Your task to perform on an android device: clear history in the chrome app Image 0: 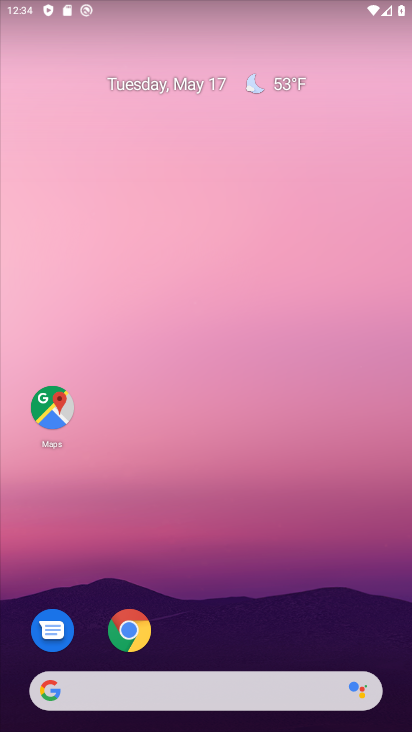
Step 0: drag from (235, 635) to (274, 184)
Your task to perform on an android device: clear history in the chrome app Image 1: 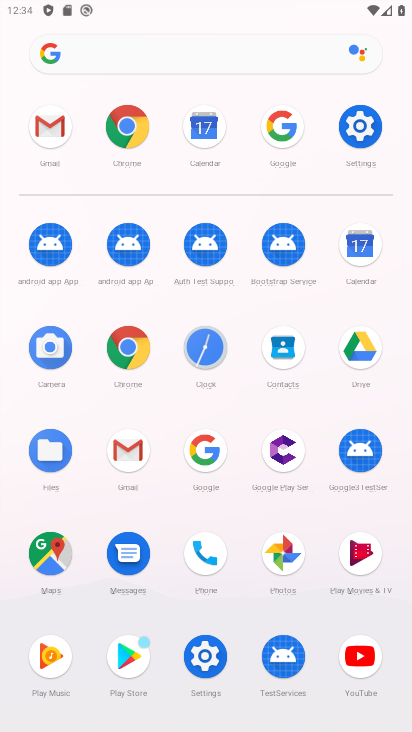
Step 1: click (116, 346)
Your task to perform on an android device: clear history in the chrome app Image 2: 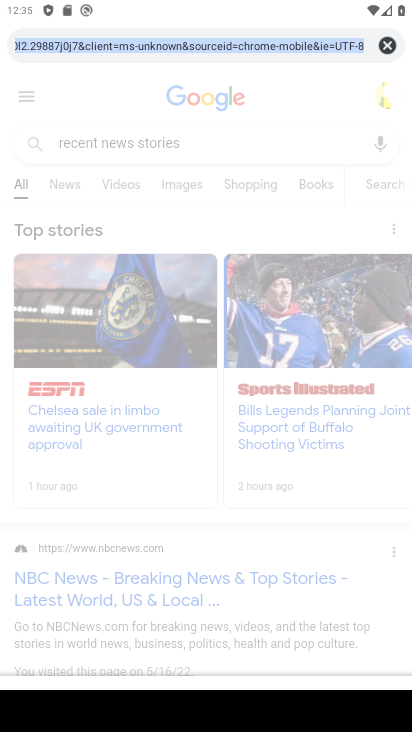
Step 2: click (159, 243)
Your task to perform on an android device: clear history in the chrome app Image 3: 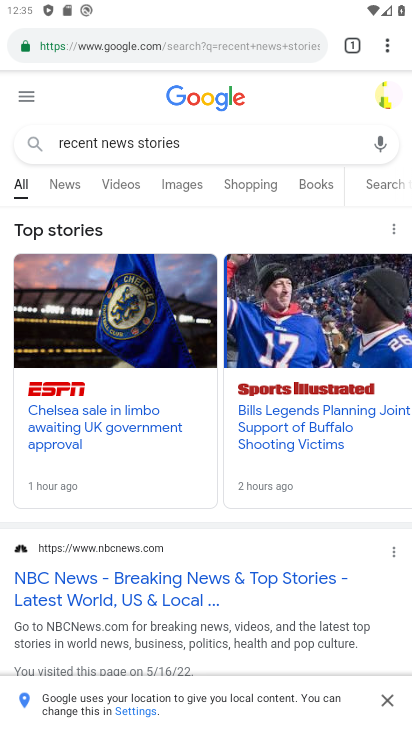
Step 3: click (384, 43)
Your task to perform on an android device: clear history in the chrome app Image 4: 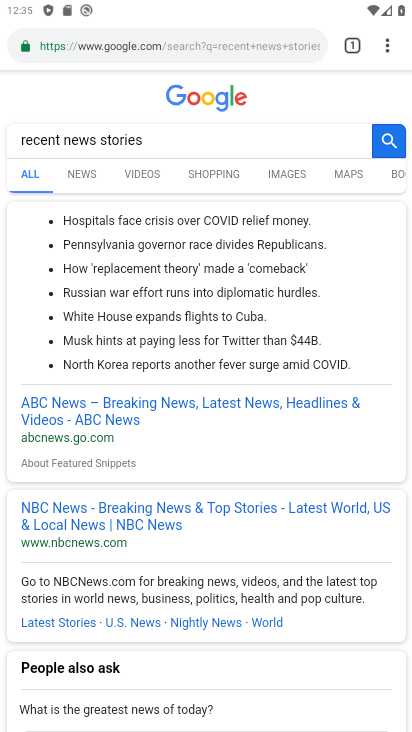
Step 4: click (390, 51)
Your task to perform on an android device: clear history in the chrome app Image 5: 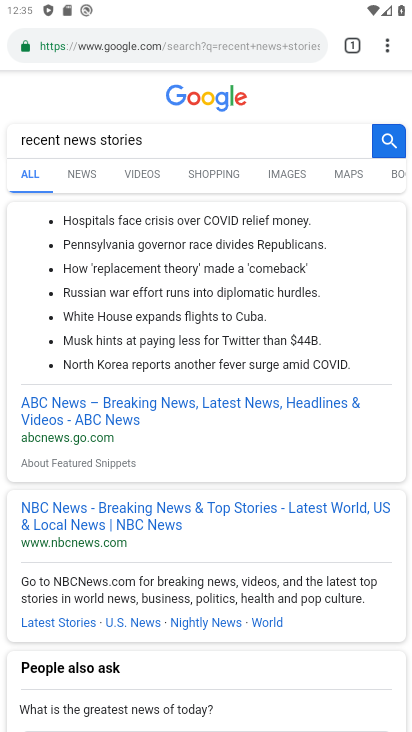
Step 5: click (390, 52)
Your task to perform on an android device: clear history in the chrome app Image 6: 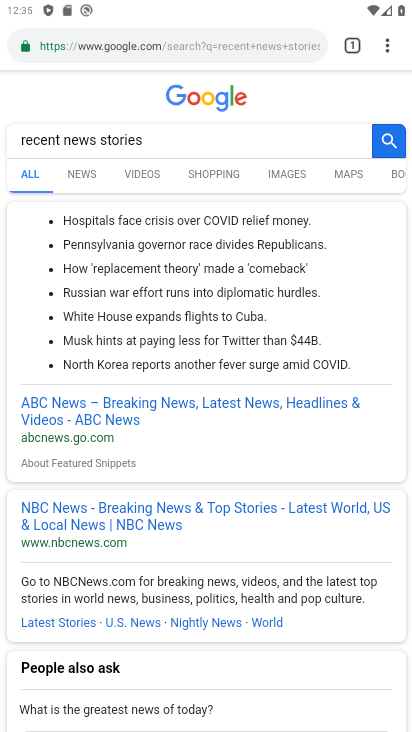
Step 6: click (389, 53)
Your task to perform on an android device: clear history in the chrome app Image 7: 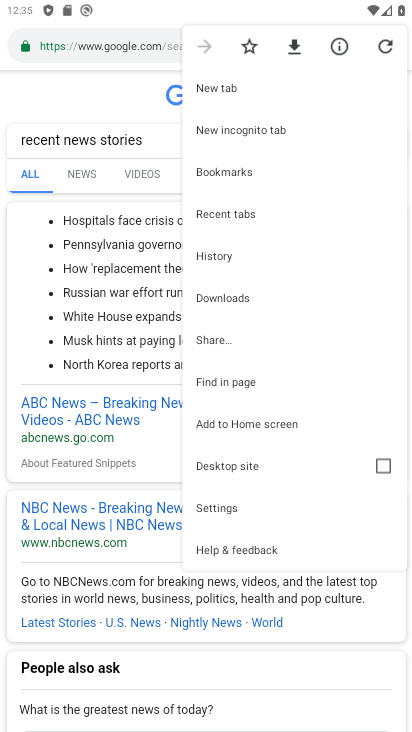
Step 7: drag from (260, 412) to (260, 239)
Your task to perform on an android device: clear history in the chrome app Image 8: 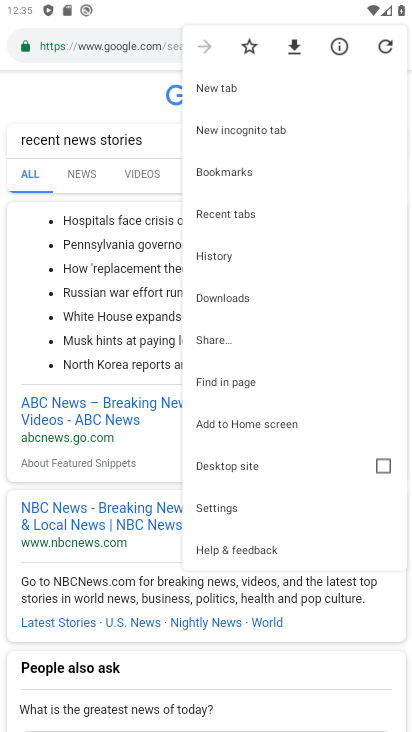
Step 8: click (245, 517)
Your task to perform on an android device: clear history in the chrome app Image 9: 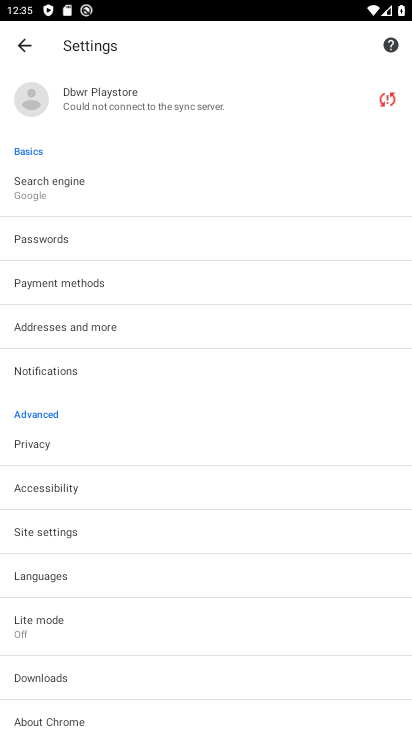
Step 9: click (20, 47)
Your task to perform on an android device: clear history in the chrome app Image 10: 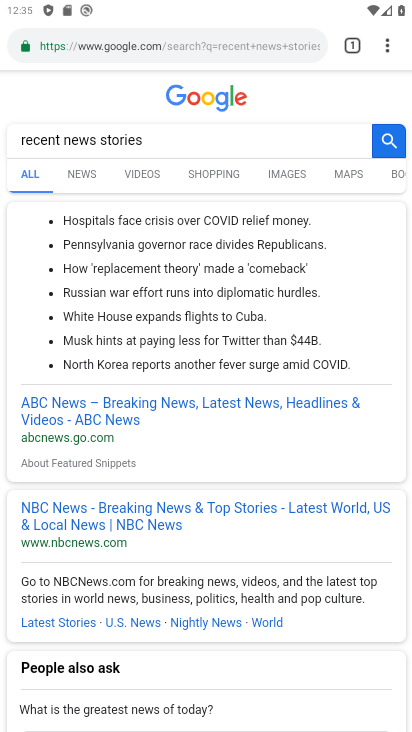
Step 10: click (387, 55)
Your task to perform on an android device: clear history in the chrome app Image 11: 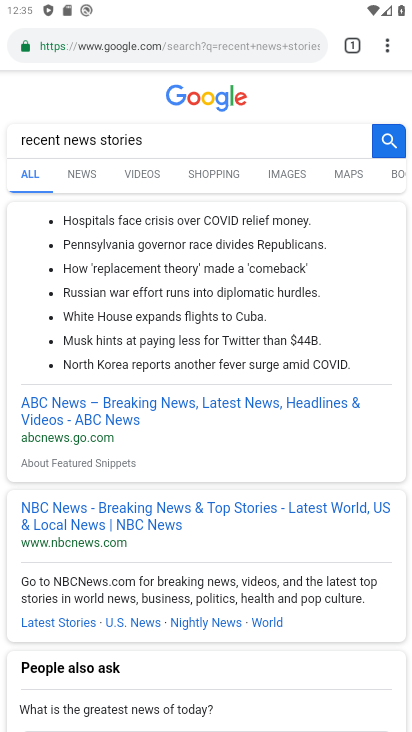
Step 11: click (402, 40)
Your task to perform on an android device: clear history in the chrome app Image 12: 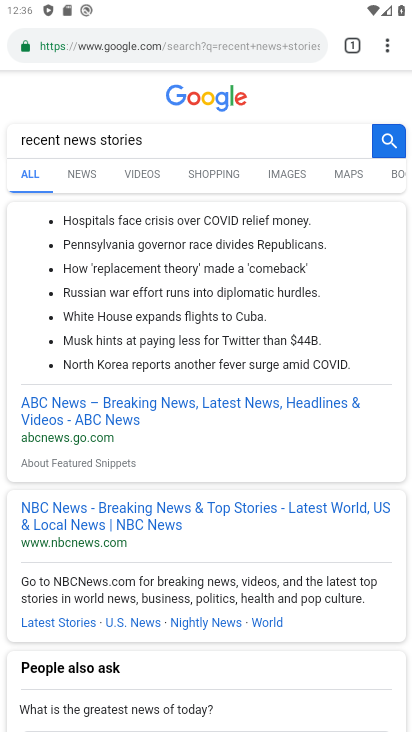
Step 12: click (388, 52)
Your task to perform on an android device: clear history in the chrome app Image 13: 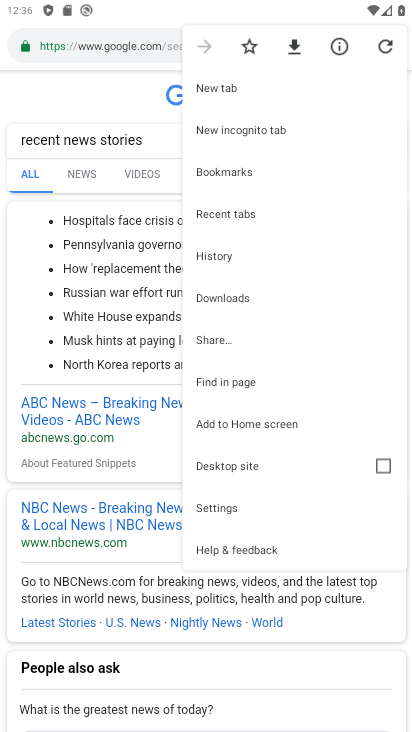
Step 13: click (230, 247)
Your task to perform on an android device: clear history in the chrome app Image 14: 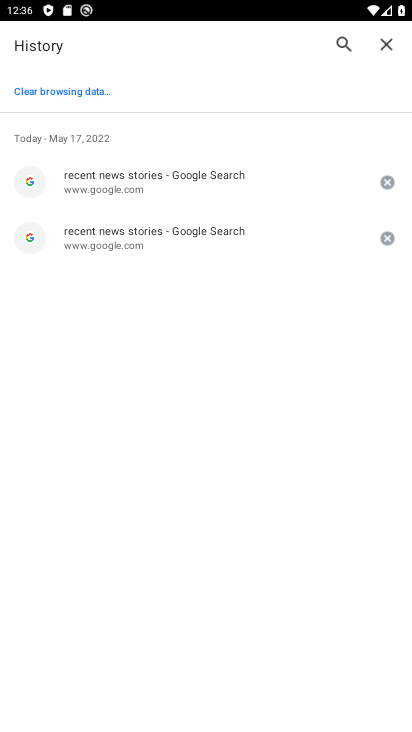
Step 14: click (62, 90)
Your task to perform on an android device: clear history in the chrome app Image 15: 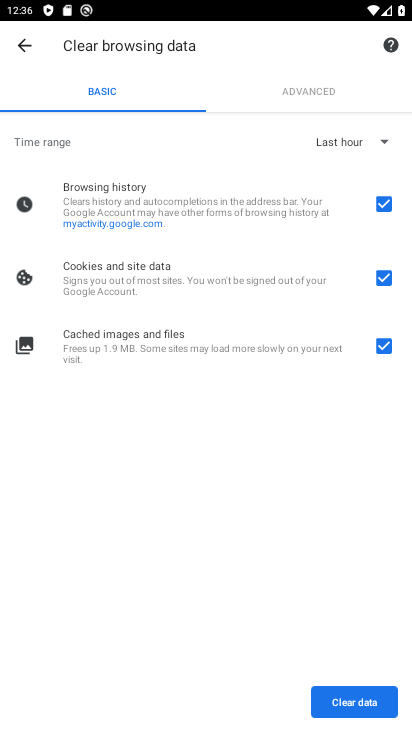
Step 15: click (352, 702)
Your task to perform on an android device: clear history in the chrome app Image 16: 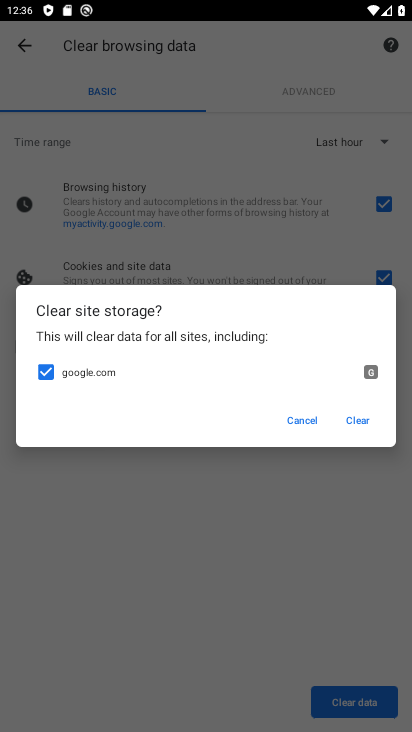
Step 16: click (350, 428)
Your task to perform on an android device: clear history in the chrome app Image 17: 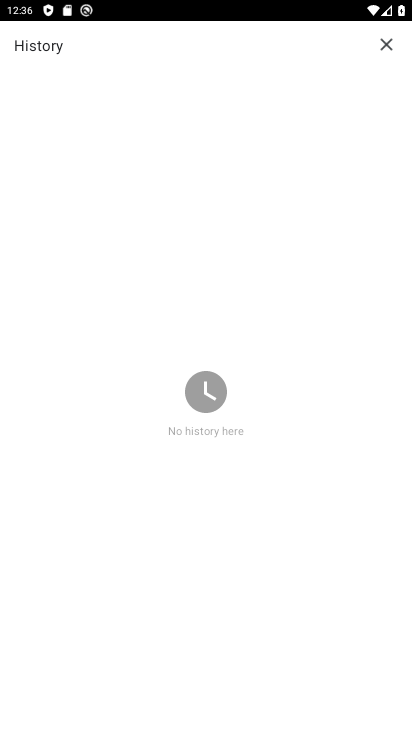
Step 17: task complete